Your task to perform on an android device: change notification settings in the gmail app Image 0: 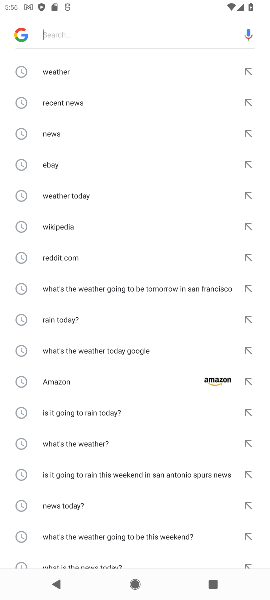
Step 0: press home button
Your task to perform on an android device: change notification settings in the gmail app Image 1: 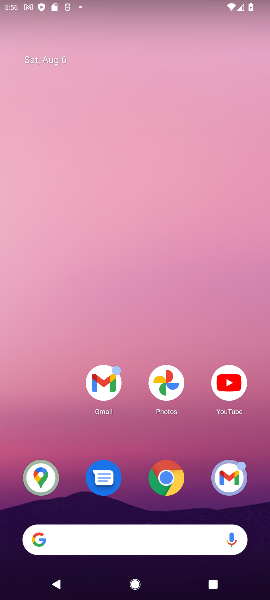
Step 1: click (98, 378)
Your task to perform on an android device: change notification settings in the gmail app Image 2: 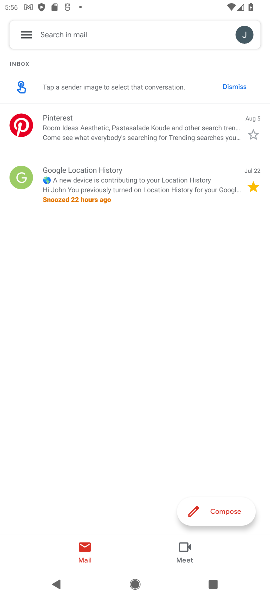
Step 2: click (23, 37)
Your task to perform on an android device: change notification settings in the gmail app Image 3: 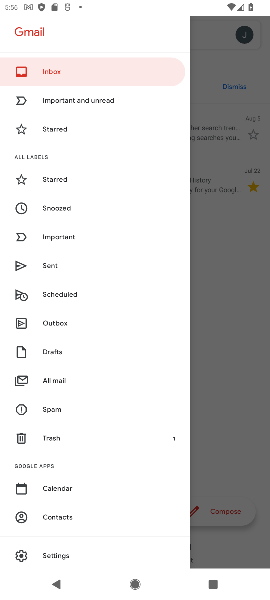
Step 3: drag from (134, 513) to (112, 190)
Your task to perform on an android device: change notification settings in the gmail app Image 4: 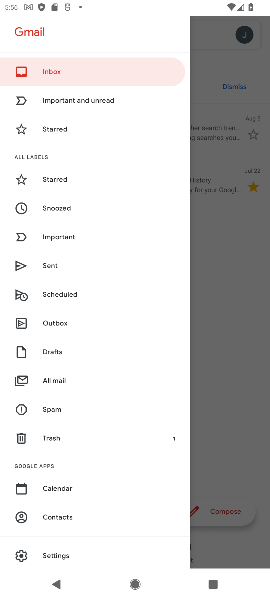
Step 4: click (61, 553)
Your task to perform on an android device: change notification settings in the gmail app Image 5: 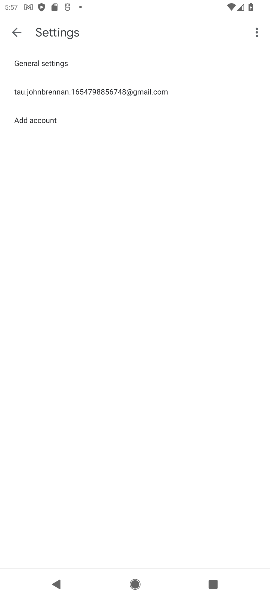
Step 5: click (84, 90)
Your task to perform on an android device: change notification settings in the gmail app Image 6: 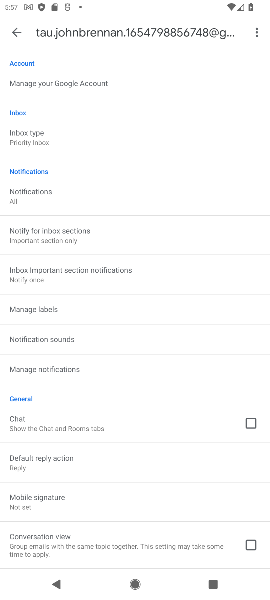
Step 6: drag from (141, 487) to (120, 42)
Your task to perform on an android device: change notification settings in the gmail app Image 7: 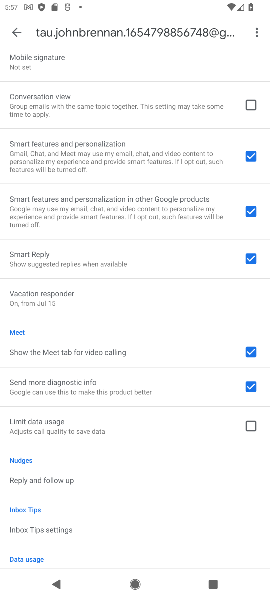
Step 7: drag from (126, 67) to (101, 393)
Your task to perform on an android device: change notification settings in the gmail app Image 8: 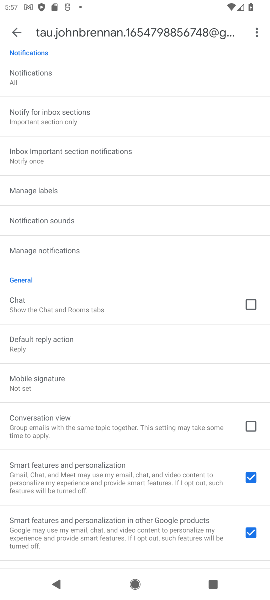
Step 8: click (32, 251)
Your task to perform on an android device: change notification settings in the gmail app Image 9: 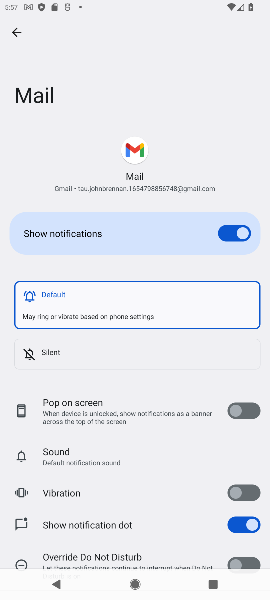
Step 9: click (242, 233)
Your task to perform on an android device: change notification settings in the gmail app Image 10: 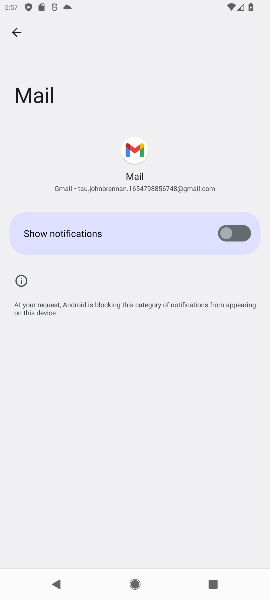
Step 10: task complete